Your task to perform on an android device: Go to Amazon Image 0: 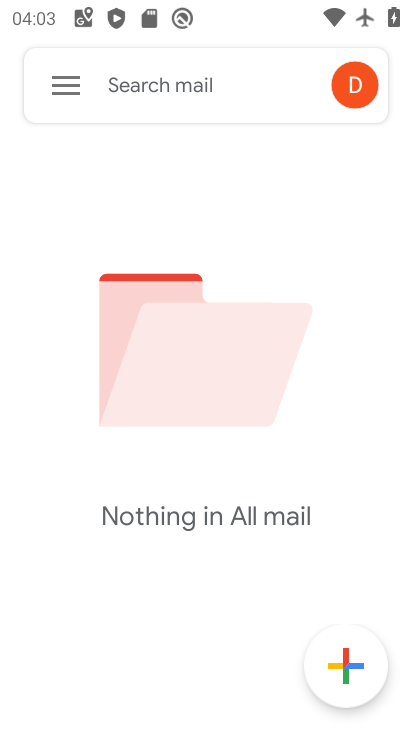
Step 0: press home button
Your task to perform on an android device: Go to Amazon Image 1: 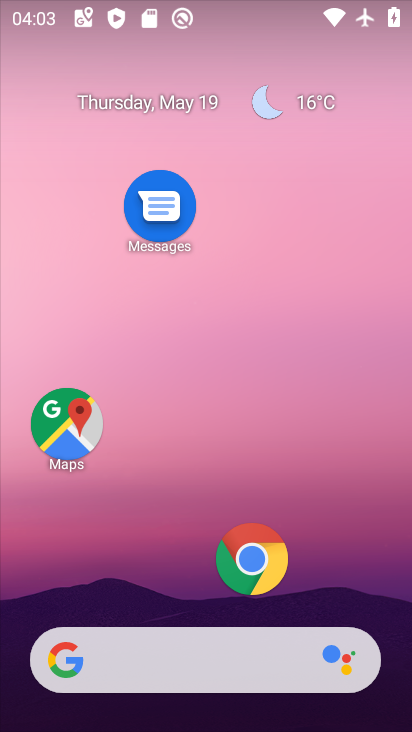
Step 1: click (264, 572)
Your task to perform on an android device: Go to Amazon Image 2: 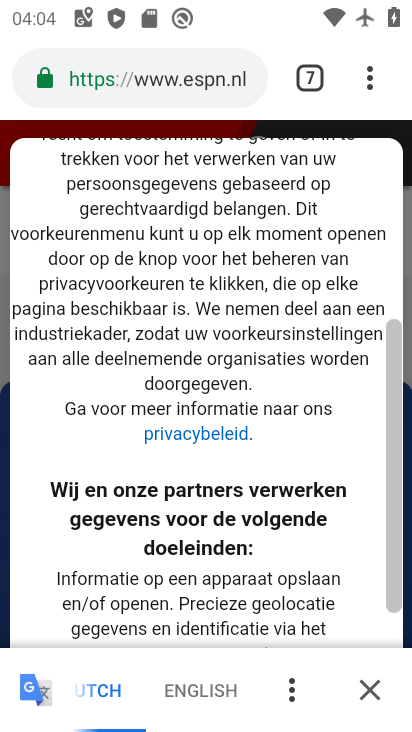
Step 2: click (296, 69)
Your task to perform on an android device: Go to Amazon Image 3: 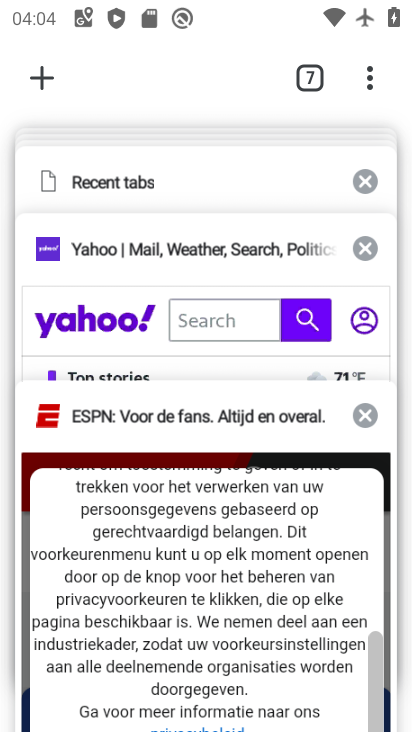
Step 3: drag from (147, 211) to (164, 350)
Your task to perform on an android device: Go to Amazon Image 4: 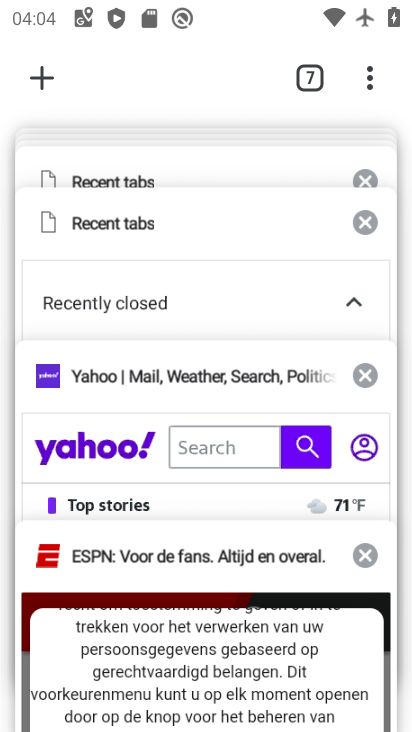
Step 4: click (38, 69)
Your task to perform on an android device: Go to Amazon Image 5: 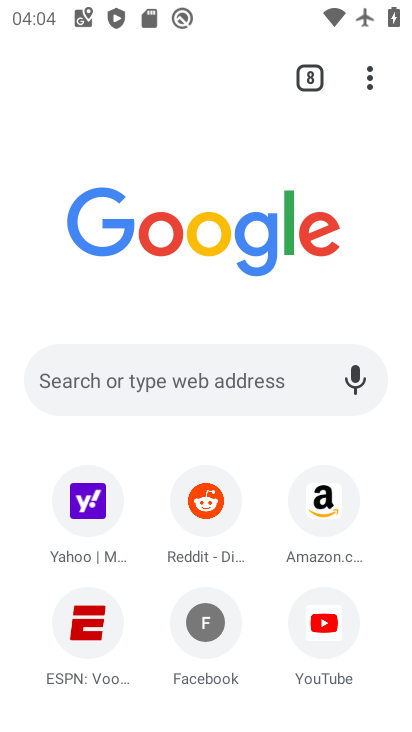
Step 5: click (320, 502)
Your task to perform on an android device: Go to Amazon Image 6: 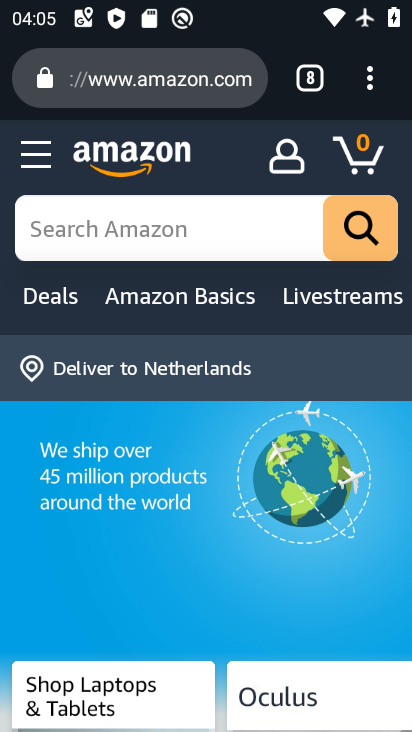
Step 6: task complete